Your task to perform on an android device: Open Google Chrome and open the bookmarks view Image 0: 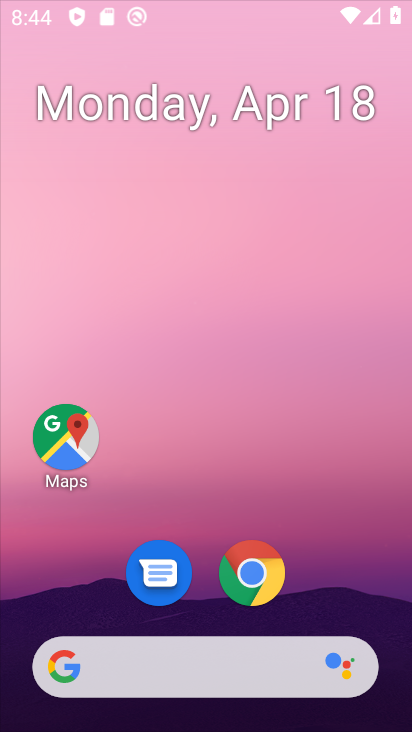
Step 0: drag from (343, 132) to (339, 55)
Your task to perform on an android device: Open Google Chrome and open the bookmarks view Image 1: 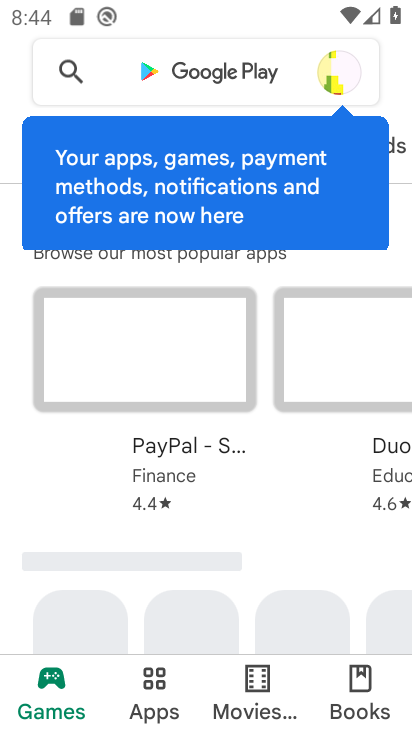
Step 1: press home button
Your task to perform on an android device: Open Google Chrome and open the bookmarks view Image 2: 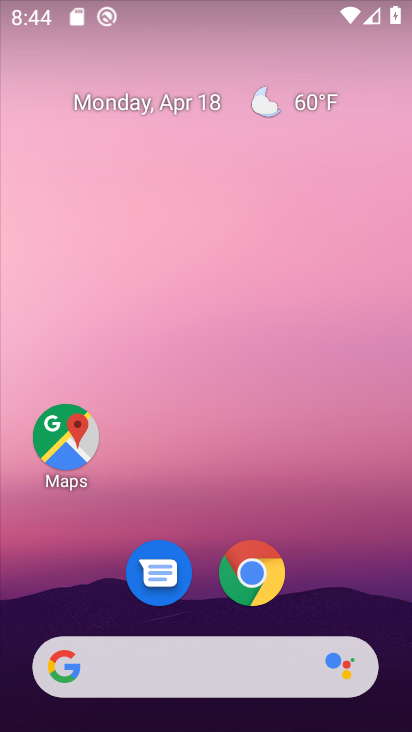
Step 2: click (249, 572)
Your task to perform on an android device: Open Google Chrome and open the bookmarks view Image 3: 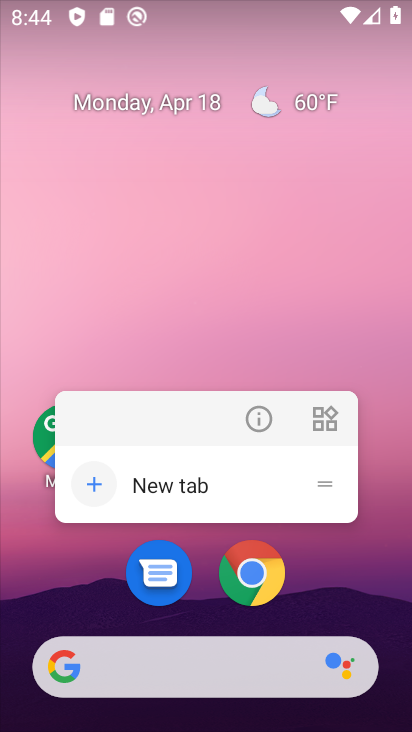
Step 3: click (250, 572)
Your task to perform on an android device: Open Google Chrome and open the bookmarks view Image 4: 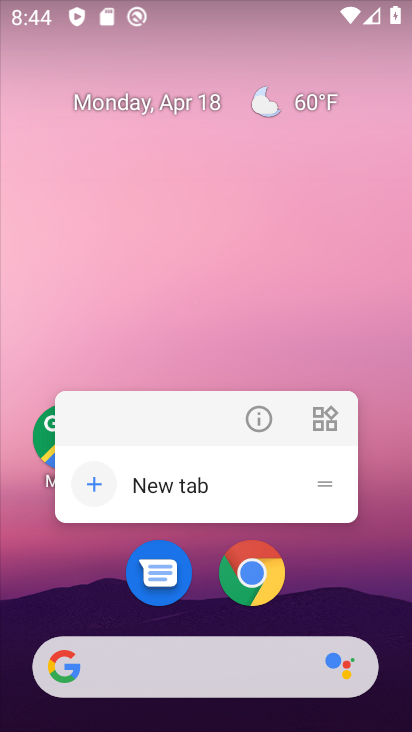
Step 4: click (245, 581)
Your task to perform on an android device: Open Google Chrome and open the bookmarks view Image 5: 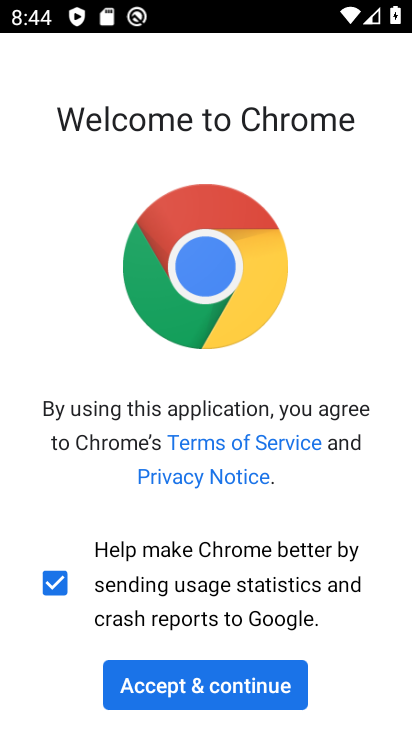
Step 5: click (181, 688)
Your task to perform on an android device: Open Google Chrome and open the bookmarks view Image 6: 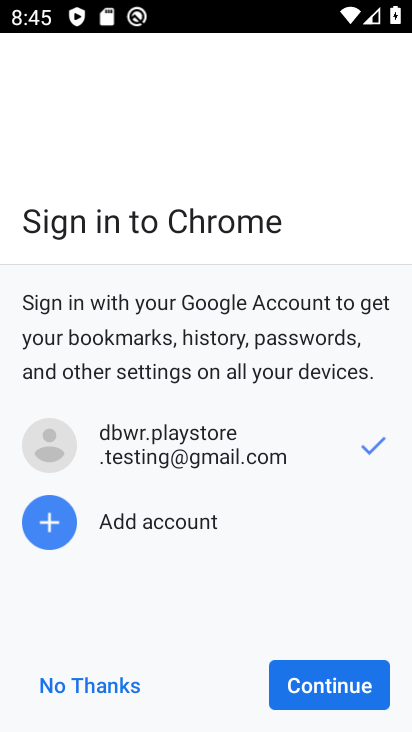
Step 6: click (313, 692)
Your task to perform on an android device: Open Google Chrome and open the bookmarks view Image 7: 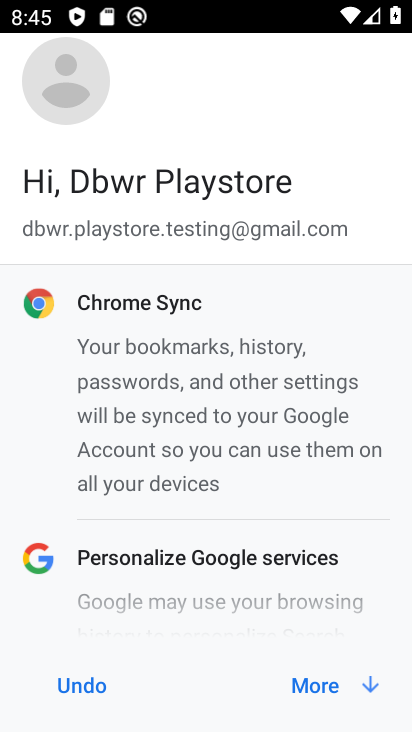
Step 7: click (290, 690)
Your task to perform on an android device: Open Google Chrome and open the bookmarks view Image 8: 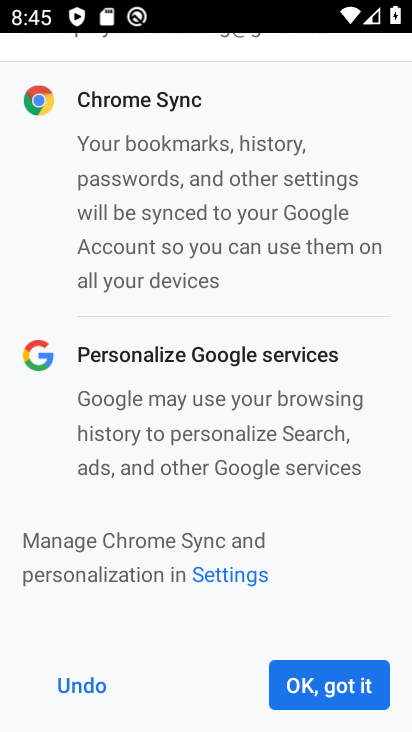
Step 8: click (346, 685)
Your task to perform on an android device: Open Google Chrome and open the bookmarks view Image 9: 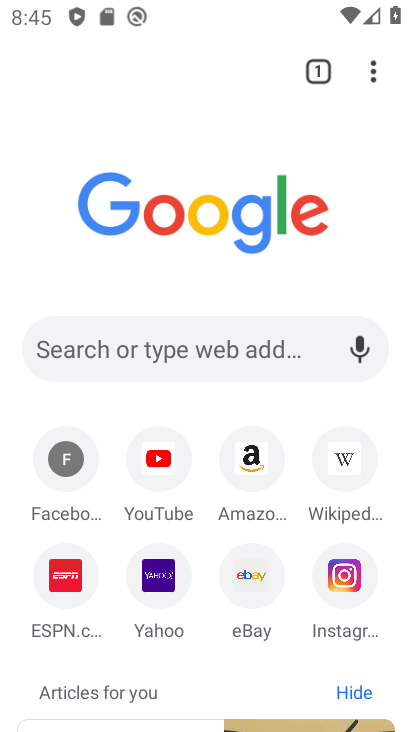
Step 9: click (371, 68)
Your task to perform on an android device: Open Google Chrome and open the bookmarks view Image 10: 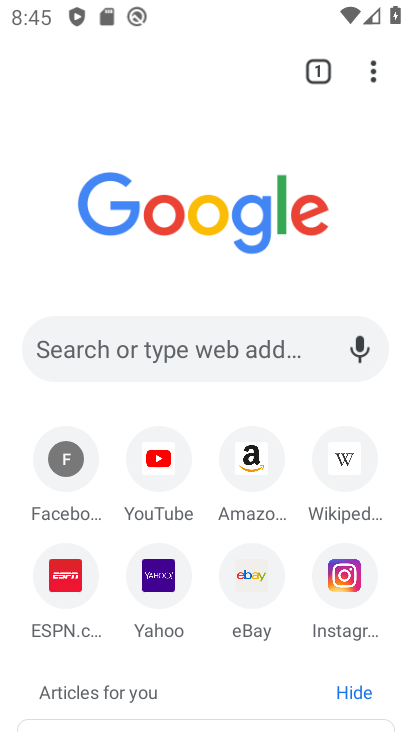
Step 10: click (375, 69)
Your task to perform on an android device: Open Google Chrome and open the bookmarks view Image 11: 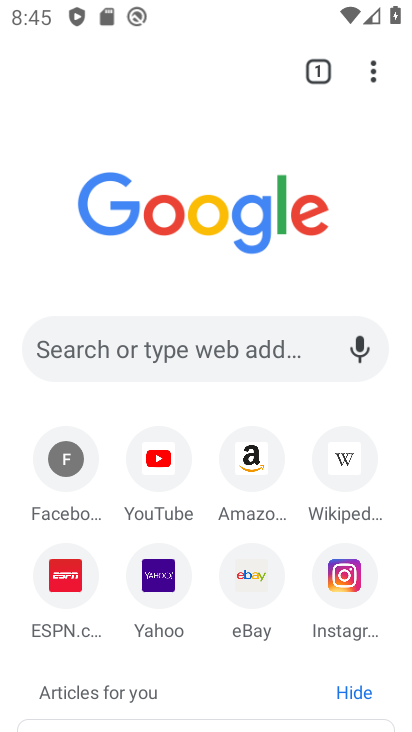
Step 11: click (374, 69)
Your task to perform on an android device: Open Google Chrome and open the bookmarks view Image 12: 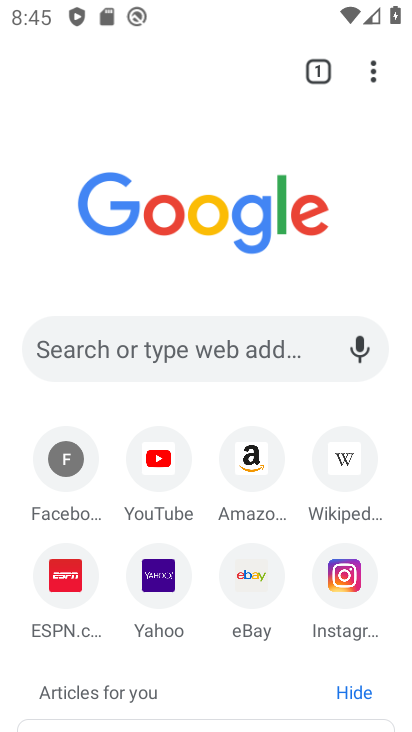
Step 12: click (374, 69)
Your task to perform on an android device: Open Google Chrome and open the bookmarks view Image 13: 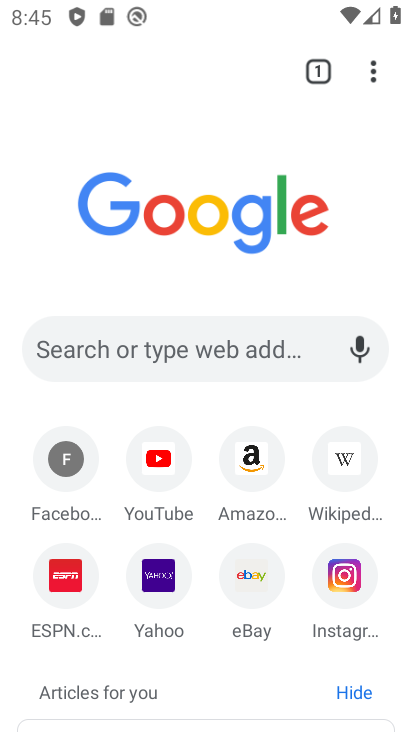
Step 13: click (374, 69)
Your task to perform on an android device: Open Google Chrome and open the bookmarks view Image 14: 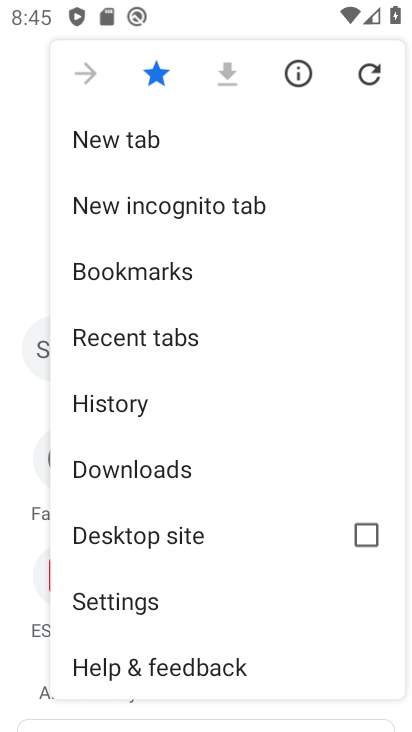
Step 14: click (131, 279)
Your task to perform on an android device: Open Google Chrome and open the bookmarks view Image 15: 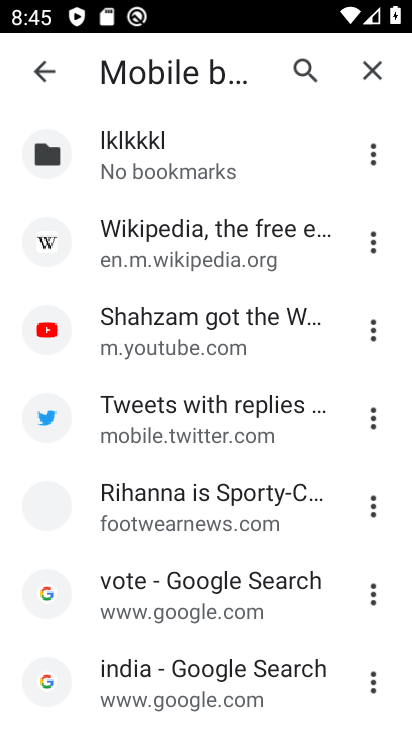
Step 15: task complete